Your task to perform on an android device: check data usage Image 0: 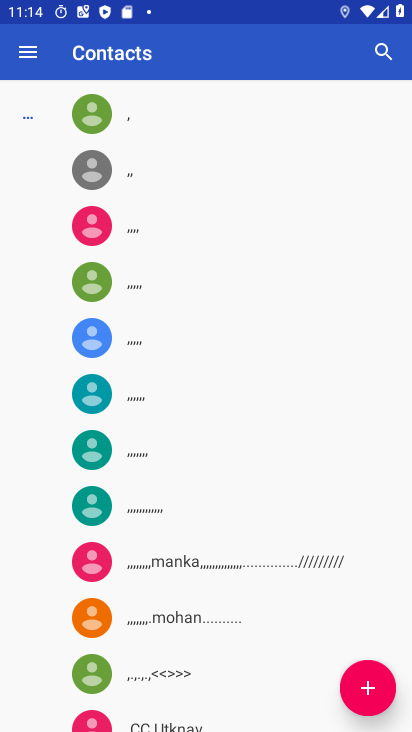
Step 0: press home button
Your task to perform on an android device: check data usage Image 1: 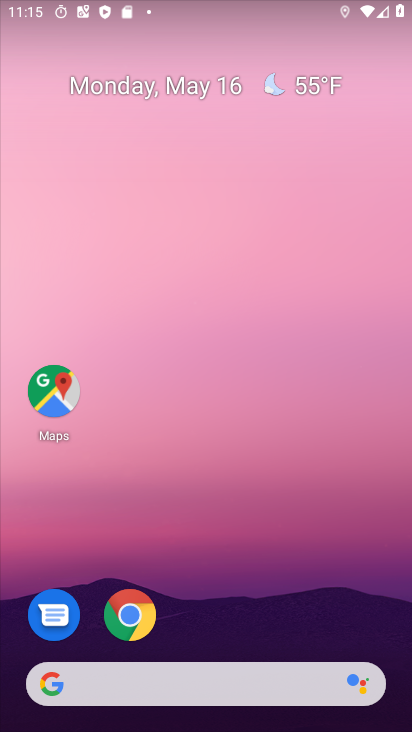
Step 1: click (263, 593)
Your task to perform on an android device: check data usage Image 2: 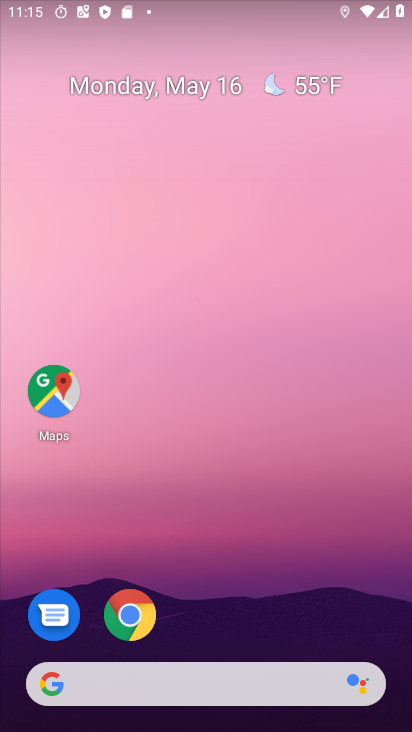
Step 2: drag from (279, 15) to (256, 391)
Your task to perform on an android device: check data usage Image 3: 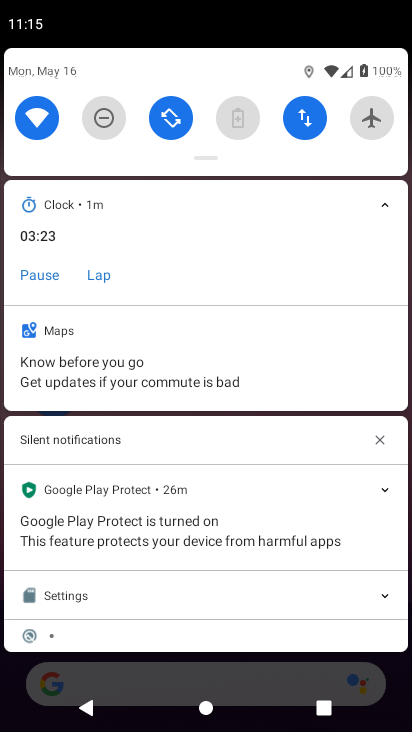
Step 3: click (304, 109)
Your task to perform on an android device: check data usage Image 4: 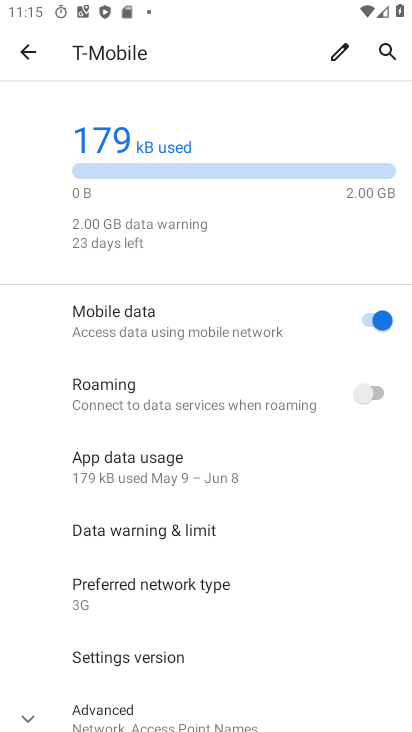
Step 4: task complete